Your task to perform on an android device: turn on sleep mode Image 0: 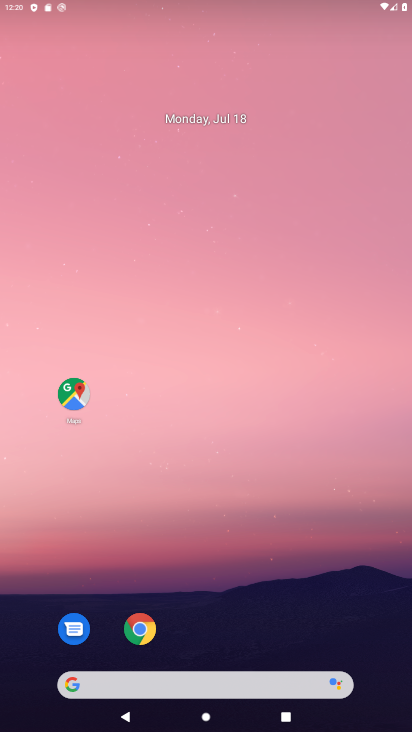
Step 0: drag from (233, 597) to (195, 334)
Your task to perform on an android device: turn on sleep mode Image 1: 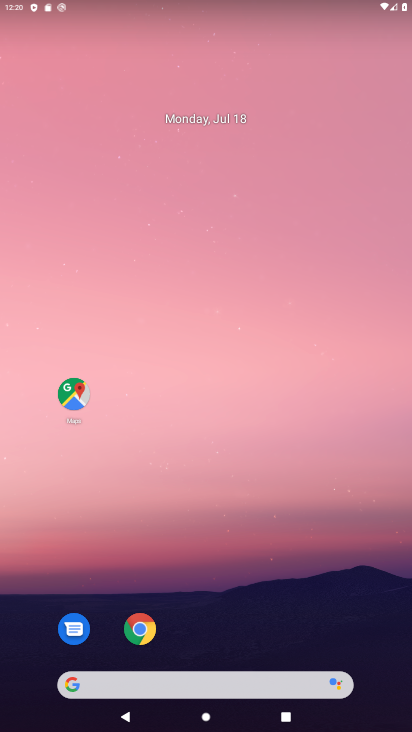
Step 1: drag from (242, 571) to (136, 29)
Your task to perform on an android device: turn on sleep mode Image 2: 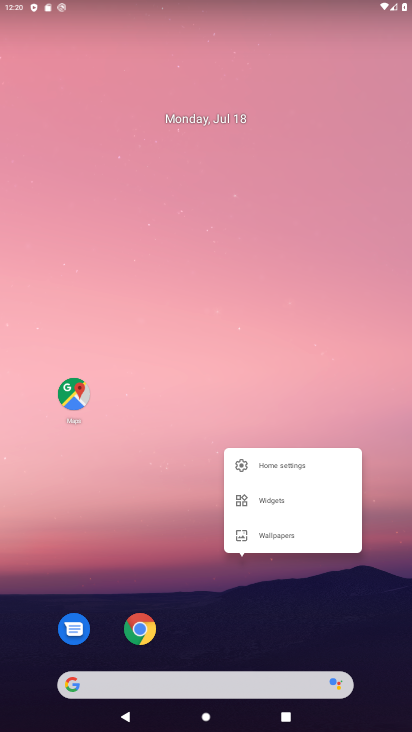
Step 2: click (160, 476)
Your task to perform on an android device: turn on sleep mode Image 3: 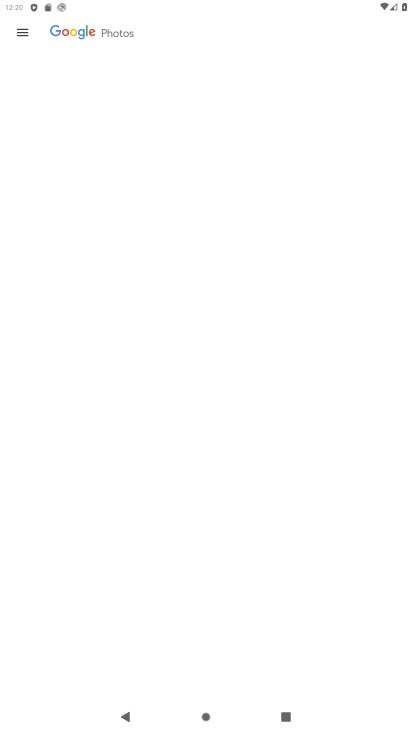
Step 3: drag from (186, 548) to (164, 276)
Your task to perform on an android device: turn on sleep mode Image 4: 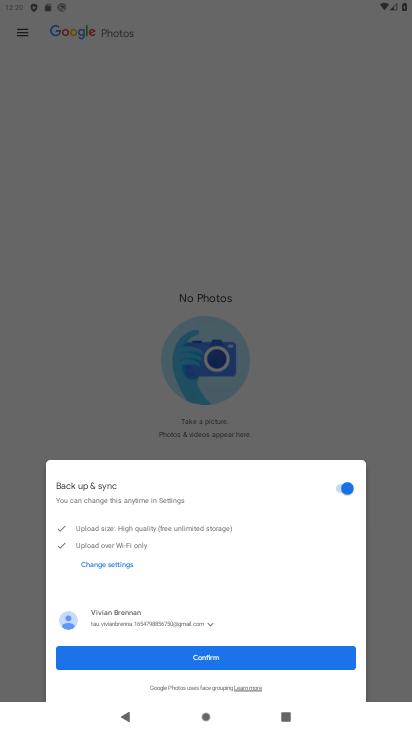
Step 4: press home button
Your task to perform on an android device: turn on sleep mode Image 5: 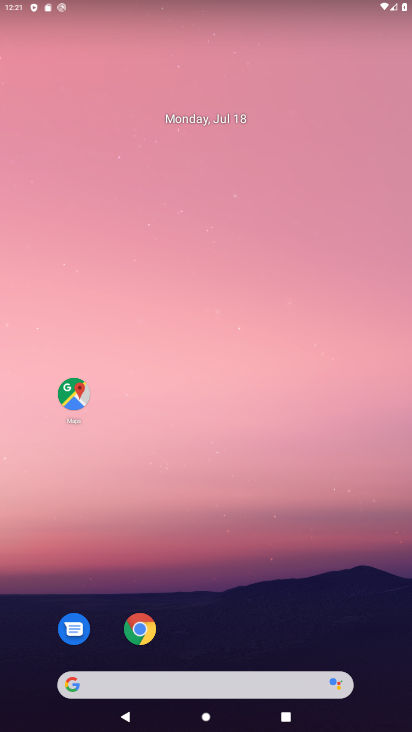
Step 5: drag from (257, 590) to (169, 127)
Your task to perform on an android device: turn on sleep mode Image 6: 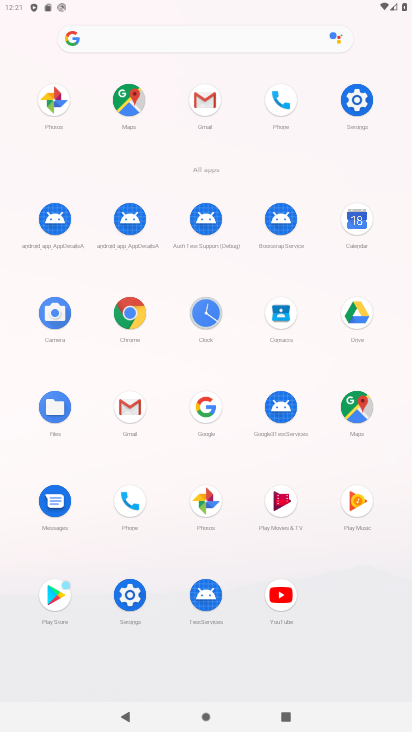
Step 6: click (355, 92)
Your task to perform on an android device: turn on sleep mode Image 7: 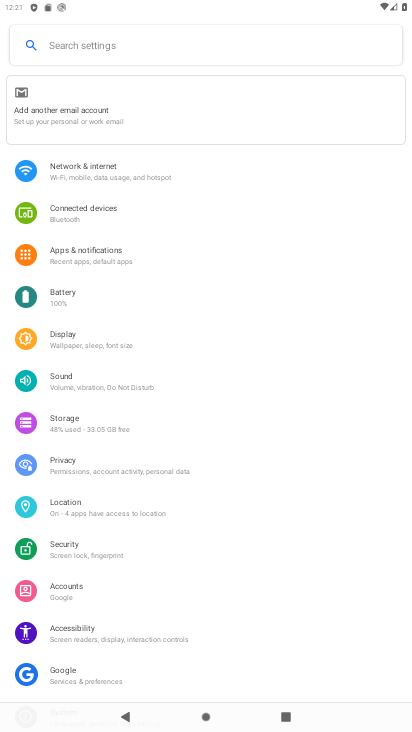
Step 7: click (75, 369)
Your task to perform on an android device: turn on sleep mode Image 8: 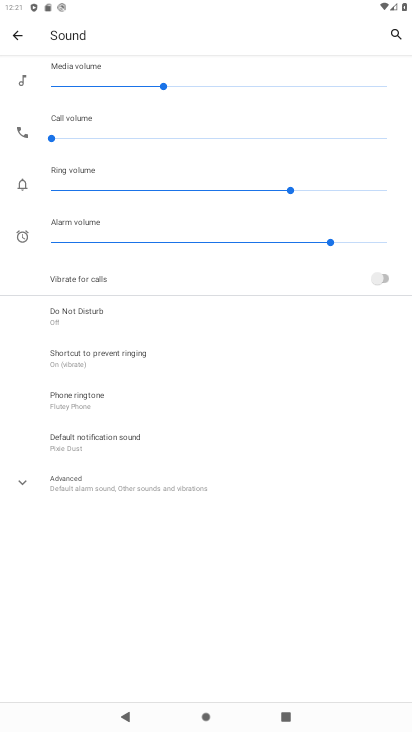
Step 8: task complete